Your task to perform on an android device: turn on data saver in the chrome app Image 0: 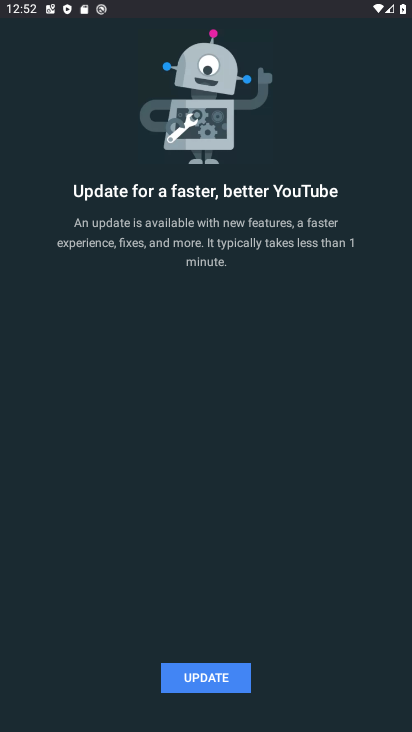
Step 0: click (264, 508)
Your task to perform on an android device: turn on data saver in the chrome app Image 1: 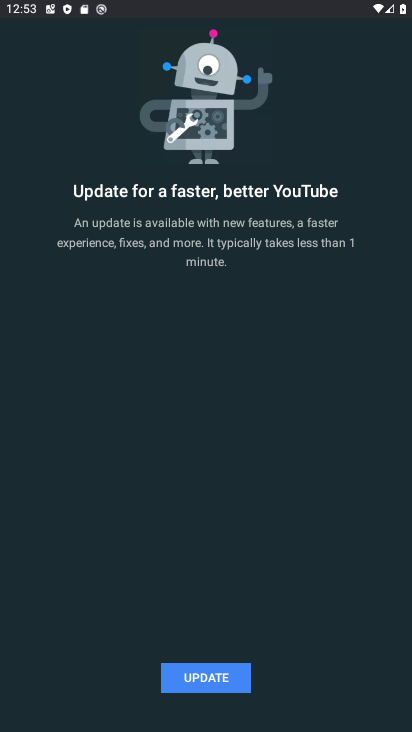
Step 1: press back button
Your task to perform on an android device: turn on data saver in the chrome app Image 2: 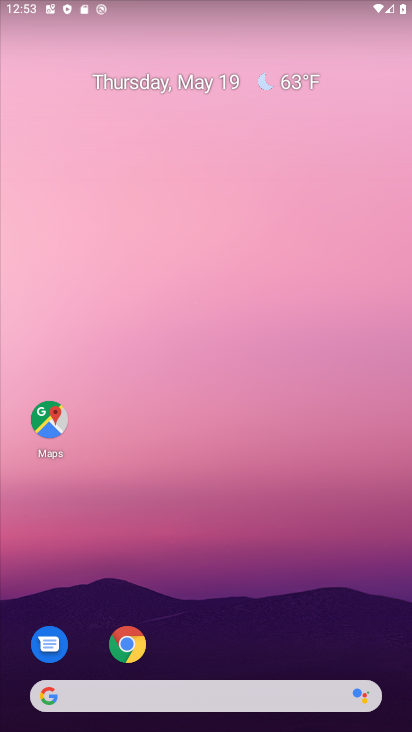
Step 2: click (139, 647)
Your task to perform on an android device: turn on data saver in the chrome app Image 3: 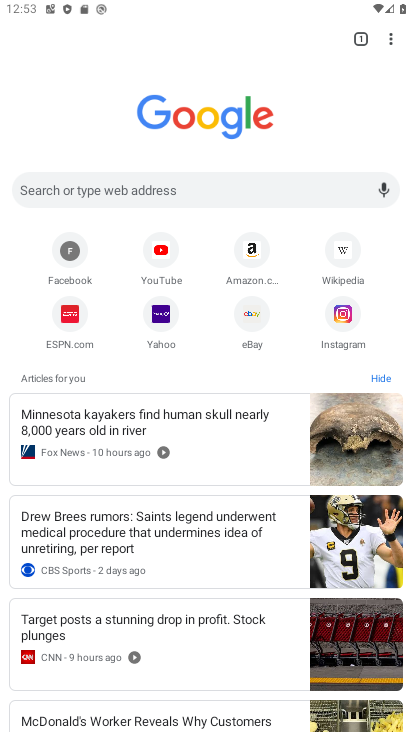
Step 3: click (388, 36)
Your task to perform on an android device: turn on data saver in the chrome app Image 4: 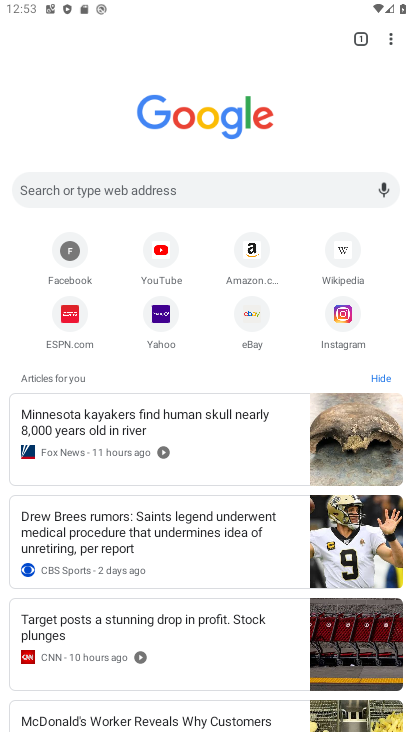
Step 4: click (392, 35)
Your task to perform on an android device: turn on data saver in the chrome app Image 5: 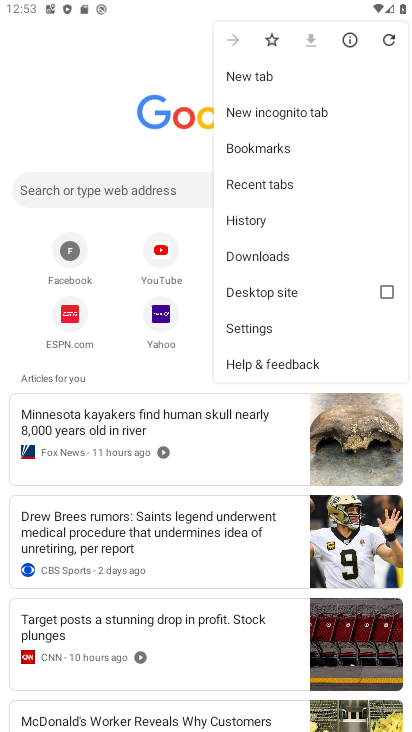
Step 5: click (244, 327)
Your task to perform on an android device: turn on data saver in the chrome app Image 6: 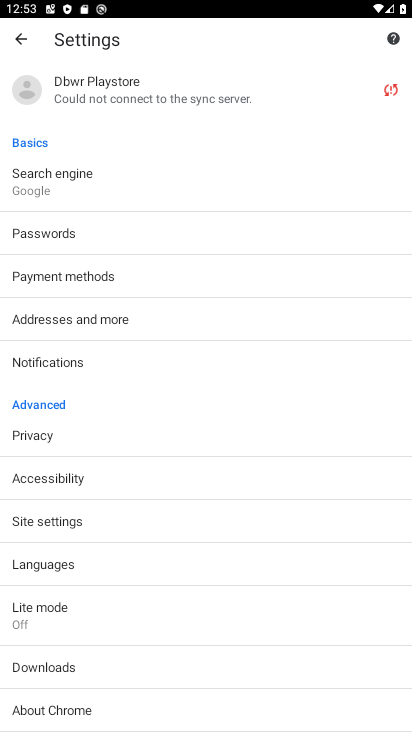
Step 6: click (46, 612)
Your task to perform on an android device: turn on data saver in the chrome app Image 7: 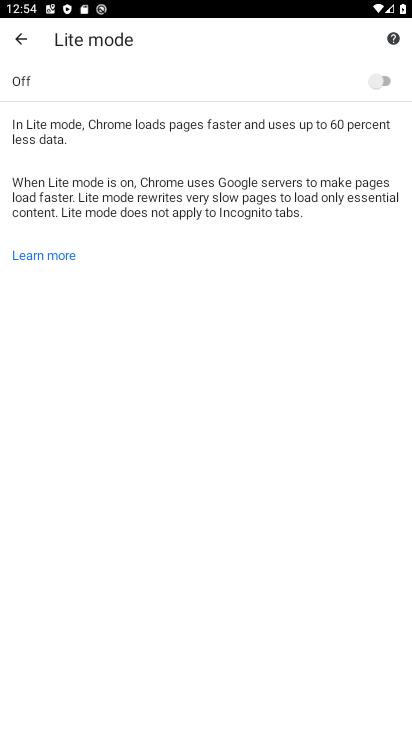
Step 7: click (382, 80)
Your task to perform on an android device: turn on data saver in the chrome app Image 8: 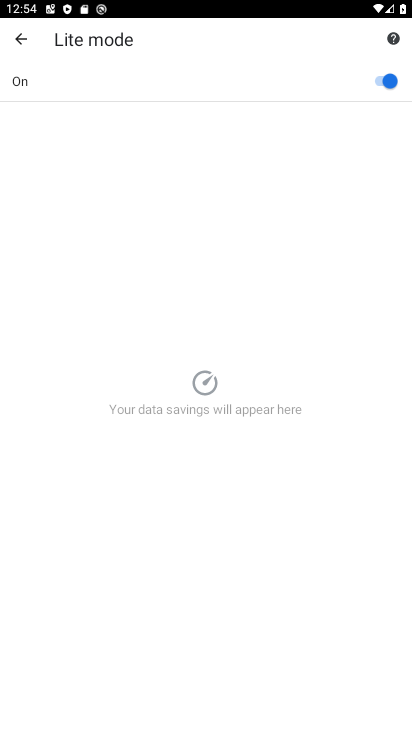
Step 8: task complete